Your task to perform on an android device: Is it going to rain today? Image 0: 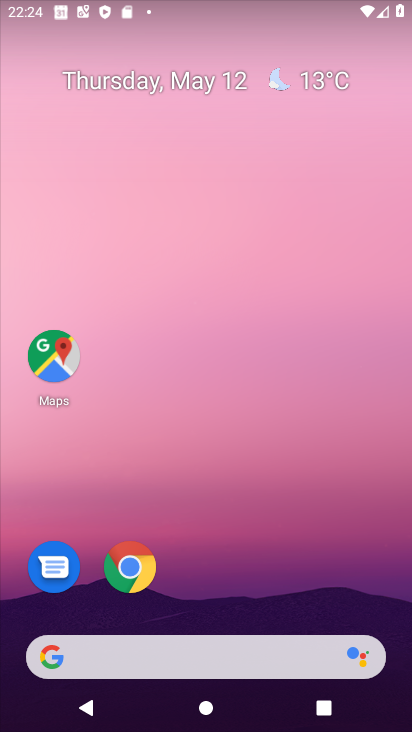
Step 0: press home button
Your task to perform on an android device: Is it going to rain today? Image 1: 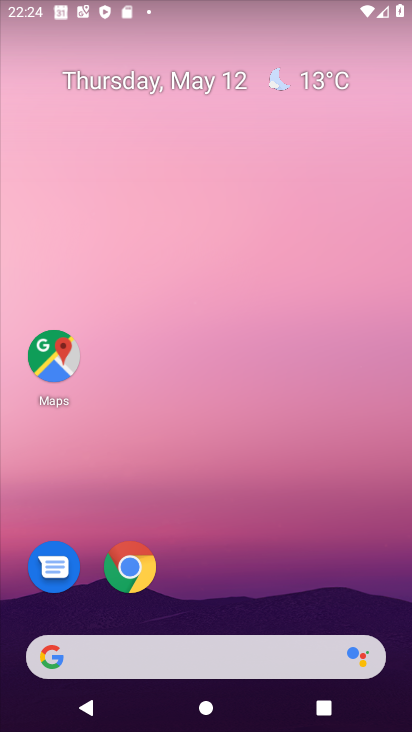
Step 1: click (314, 83)
Your task to perform on an android device: Is it going to rain today? Image 2: 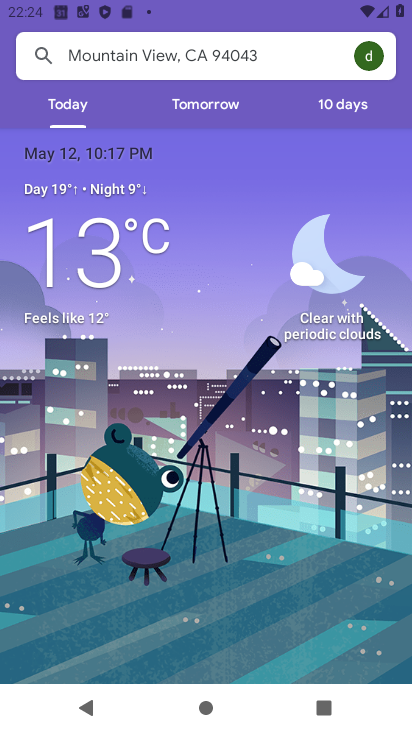
Step 2: drag from (187, 555) to (193, 162)
Your task to perform on an android device: Is it going to rain today? Image 3: 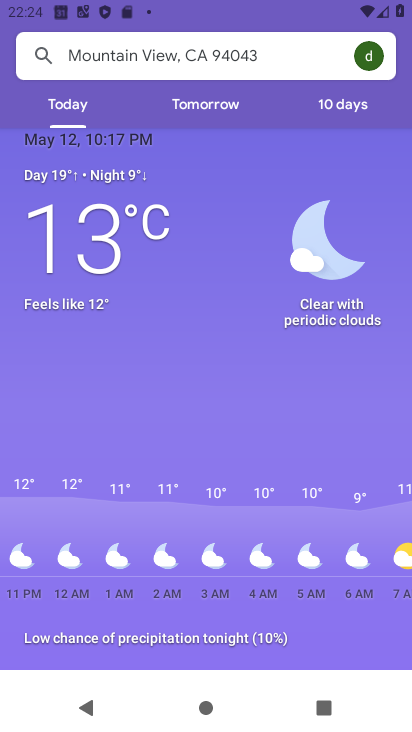
Step 3: drag from (341, 569) to (102, 540)
Your task to perform on an android device: Is it going to rain today? Image 4: 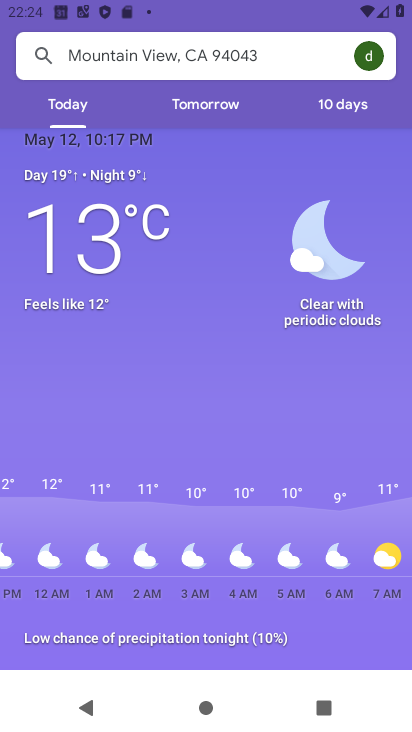
Step 4: drag from (377, 563) to (49, 541)
Your task to perform on an android device: Is it going to rain today? Image 5: 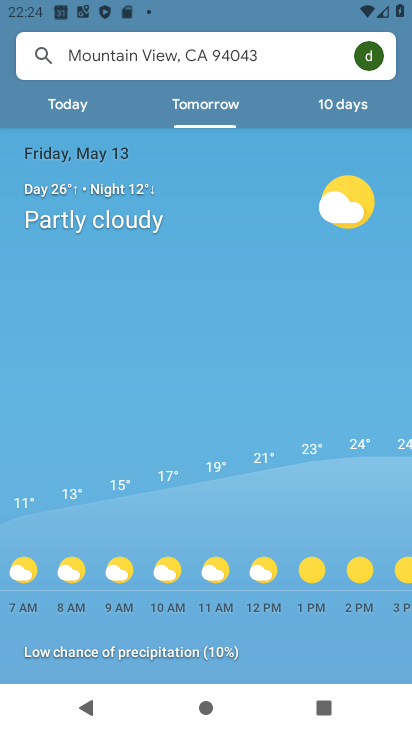
Step 5: click (68, 104)
Your task to perform on an android device: Is it going to rain today? Image 6: 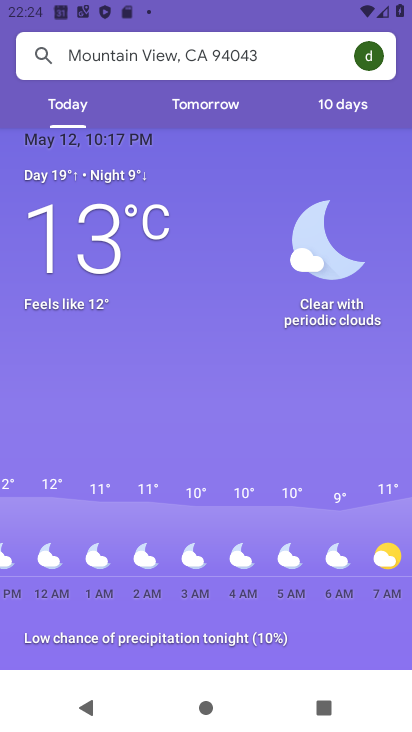
Step 6: drag from (362, 561) to (11, 552)
Your task to perform on an android device: Is it going to rain today? Image 7: 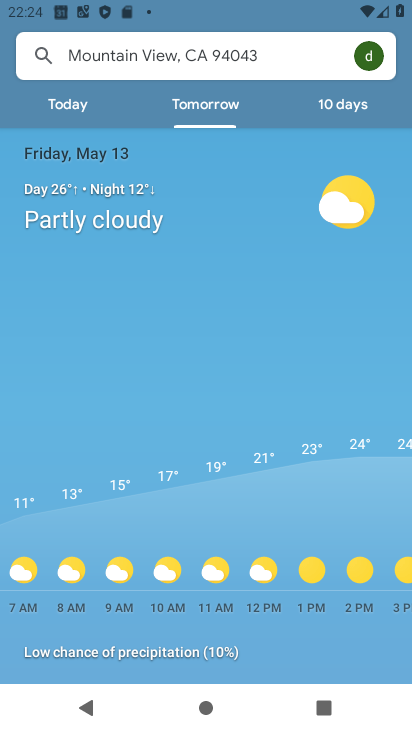
Step 7: click (70, 104)
Your task to perform on an android device: Is it going to rain today? Image 8: 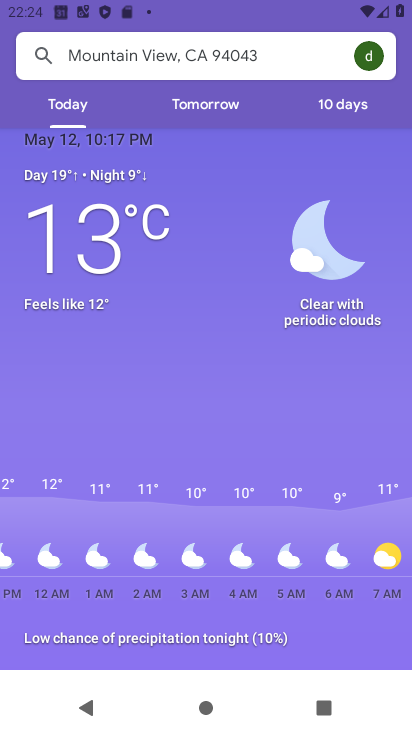
Step 8: task complete